Your task to perform on an android device: turn on sleep mode Image 0: 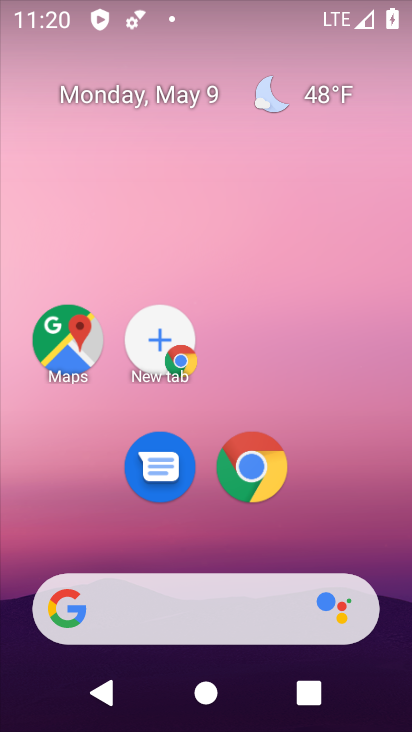
Step 0: drag from (365, 526) to (221, 0)
Your task to perform on an android device: turn on sleep mode Image 1: 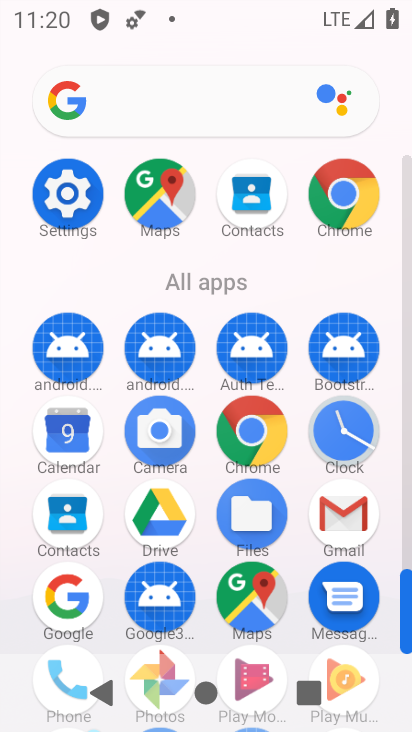
Step 1: click (58, 193)
Your task to perform on an android device: turn on sleep mode Image 2: 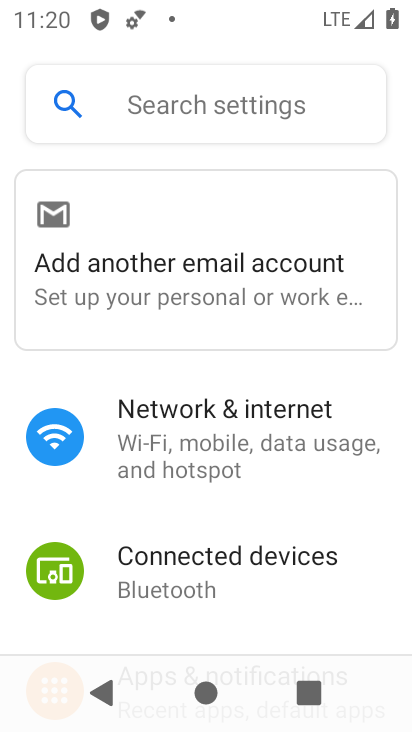
Step 2: drag from (269, 504) to (230, 276)
Your task to perform on an android device: turn on sleep mode Image 3: 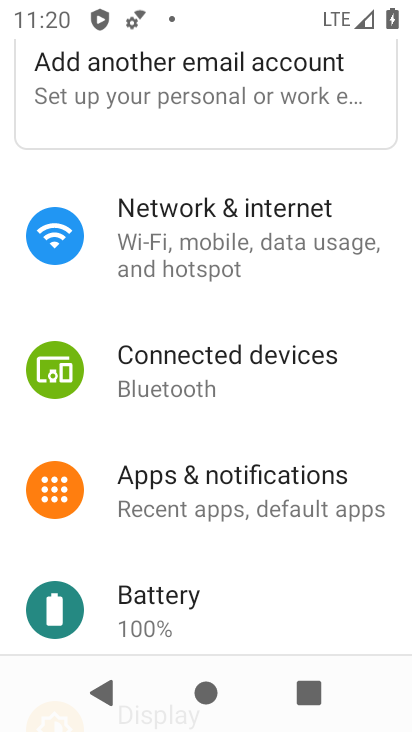
Step 3: drag from (235, 485) to (181, 266)
Your task to perform on an android device: turn on sleep mode Image 4: 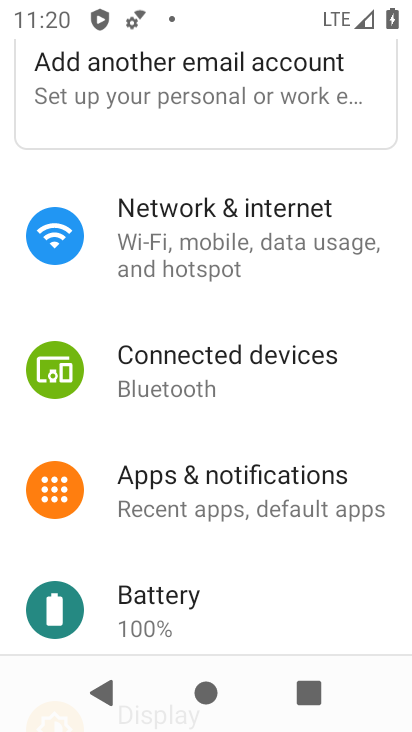
Step 4: drag from (212, 466) to (210, 246)
Your task to perform on an android device: turn on sleep mode Image 5: 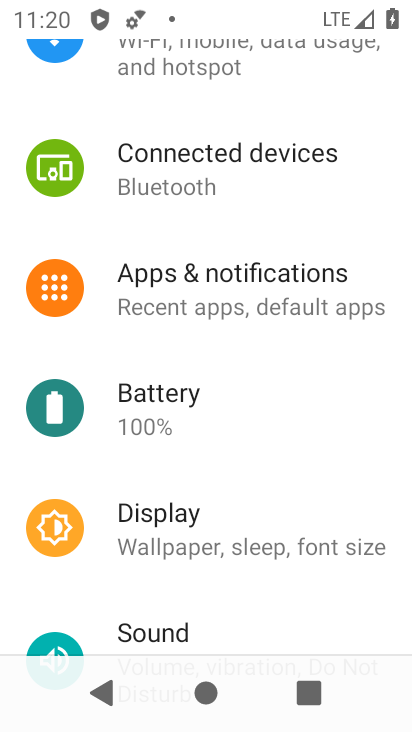
Step 5: click (227, 294)
Your task to perform on an android device: turn on sleep mode Image 6: 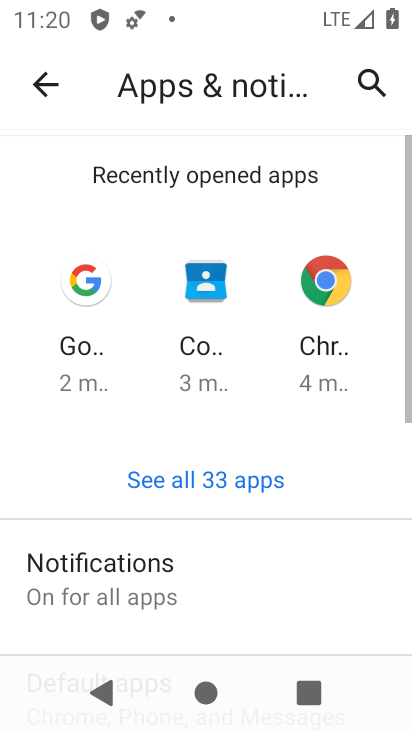
Step 6: click (41, 80)
Your task to perform on an android device: turn on sleep mode Image 7: 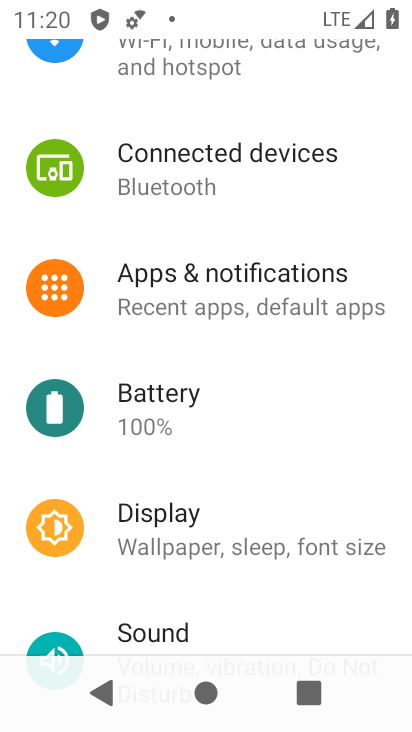
Step 7: click (182, 540)
Your task to perform on an android device: turn on sleep mode Image 8: 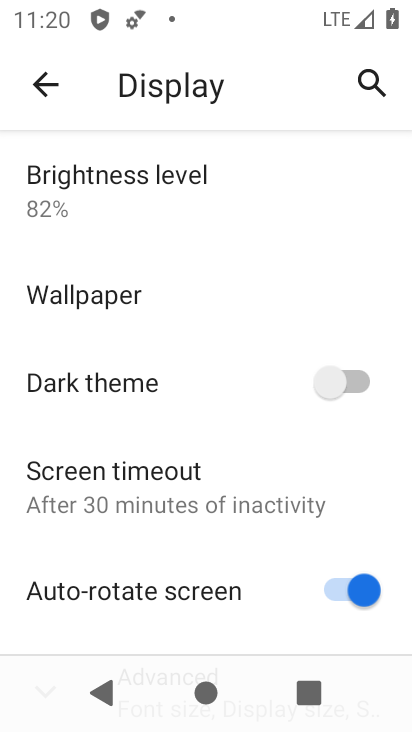
Step 8: click (110, 481)
Your task to perform on an android device: turn on sleep mode Image 9: 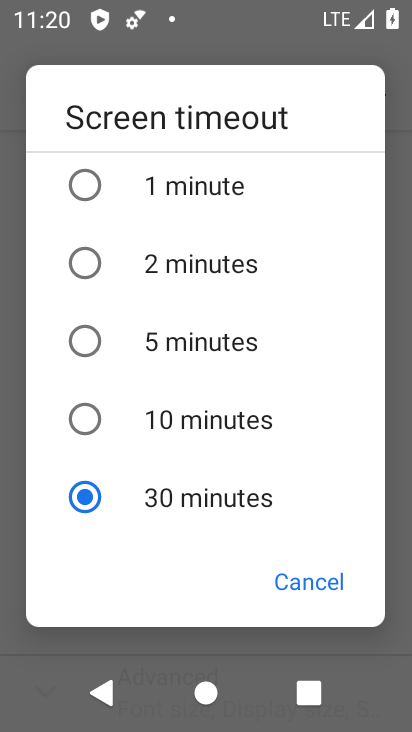
Step 9: task complete